Your task to perform on an android device: Open location settings Image 0: 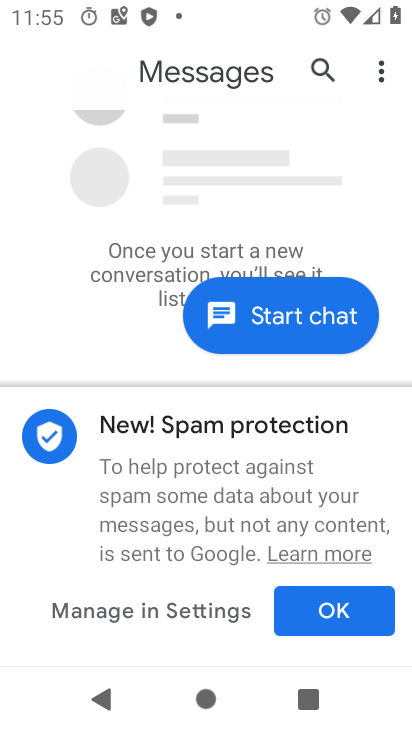
Step 0: press home button
Your task to perform on an android device: Open location settings Image 1: 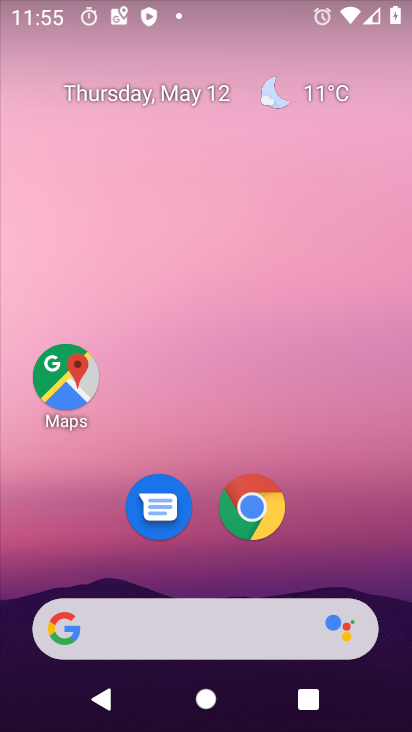
Step 1: drag from (185, 566) to (268, 8)
Your task to perform on an android device: Open location settings Image 2: 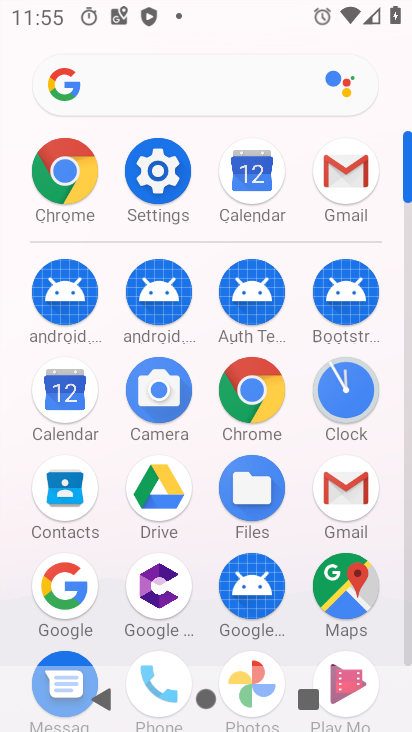
Step 2: click (173, 193)
Your task to perform on an android device: Open location settings Image 3: 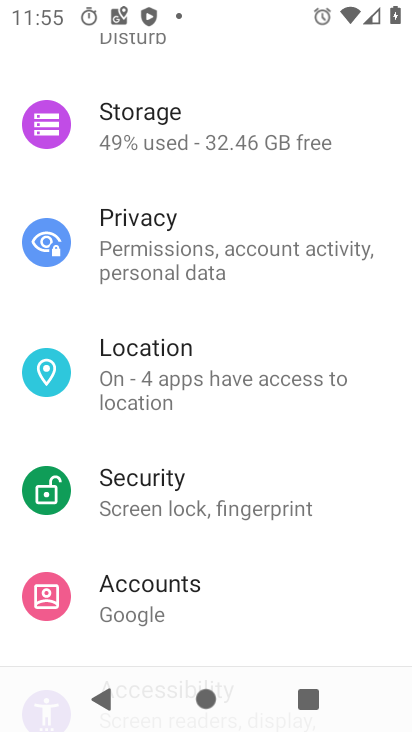
Step 3: click (145, 384)
Your task to perform on an android device: Open location settings Image 4: 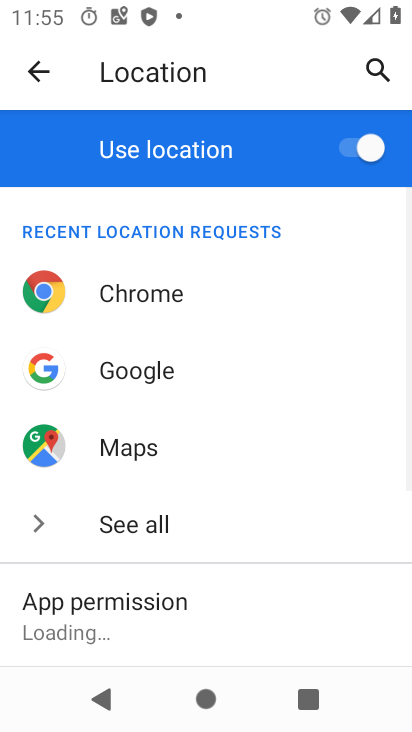
Step 4: task complete